Your task to perform on an android device: What's the news in the Philippines? Image 0: 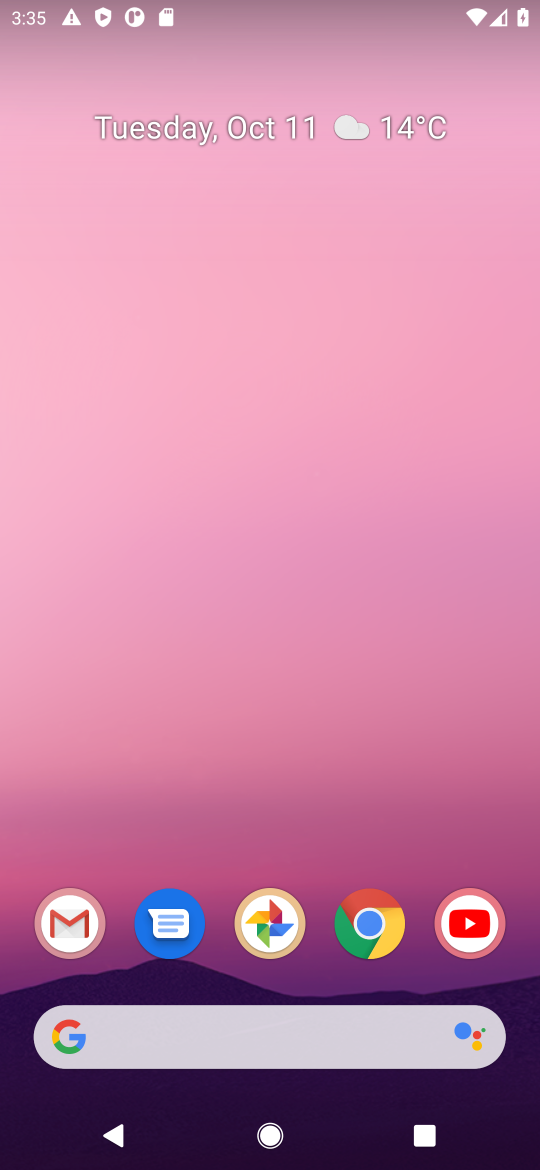
Step 0: drag from (311, 997) to (354, 79)
Your task to perform on an android device: What's the news in the Philippines? Image 1: 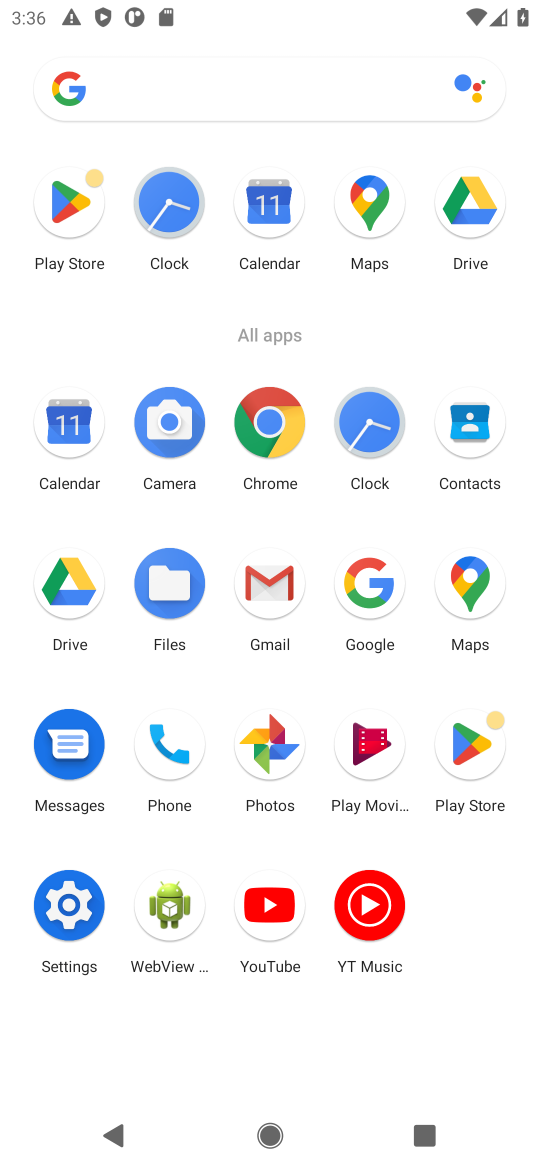
Step 1: click (271, 419)
Your task to perform on an android device: What's the news in the Philippines? Image 2: 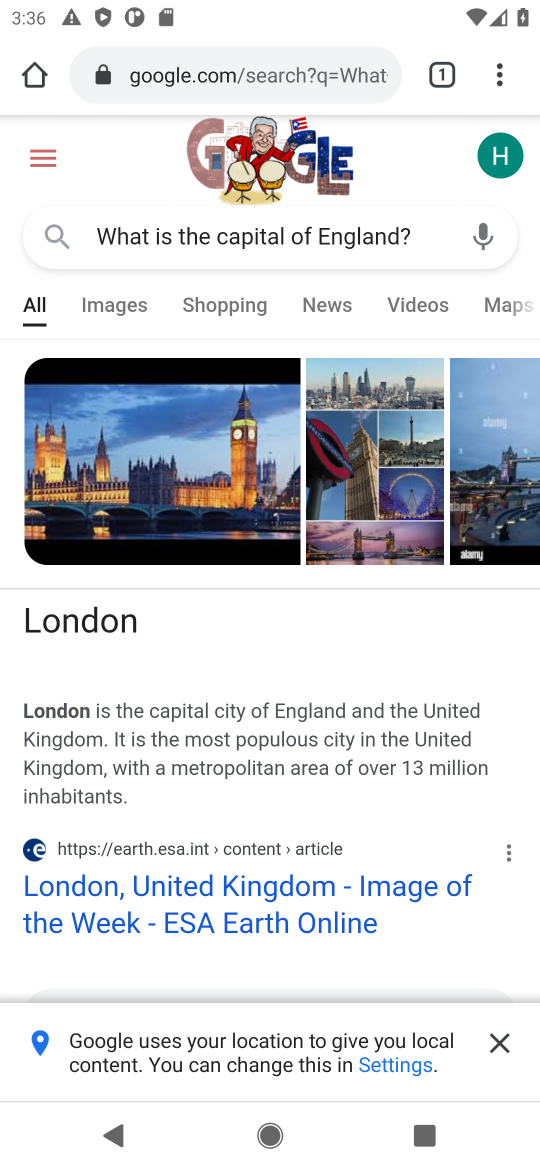
Step 2: click (420, 242)
Your task to perform on an android device: What's the news in the Philippines? Image 3: 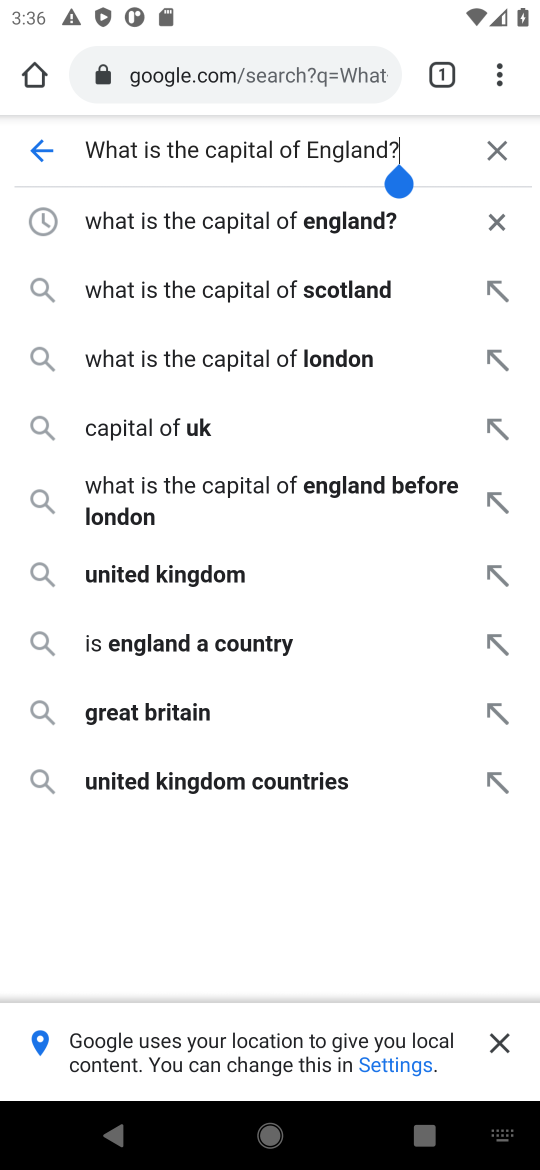
Step 3: click (493, 144)
Your task to perform on an android device: What's the news in the Philippines? Image 4: 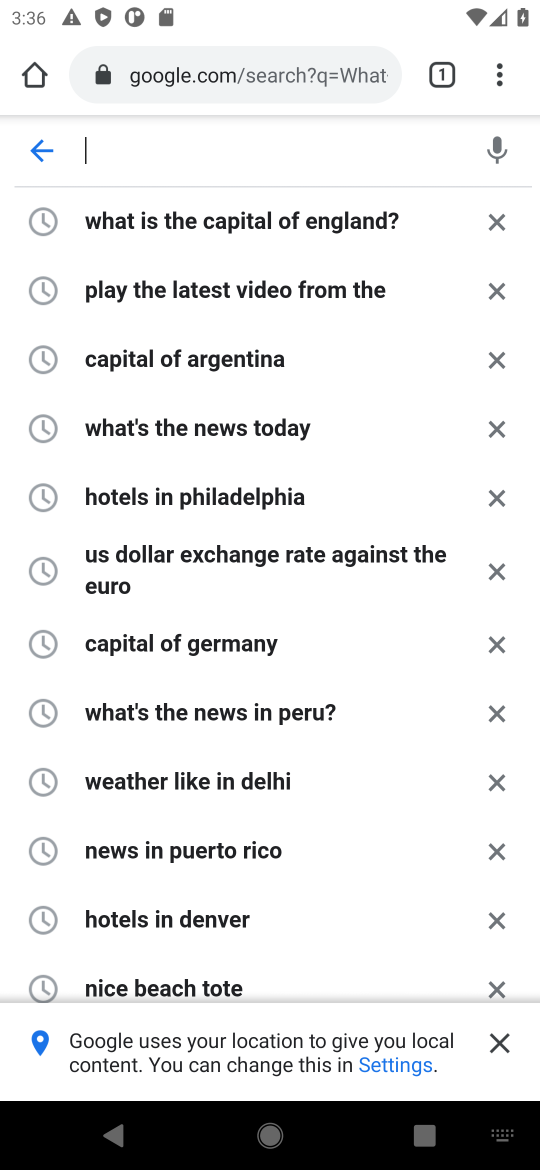
Step 4: type "What's the news in the Philippines?"
Your task to perform on an android device: What's the news in the Philippines? Image 5: 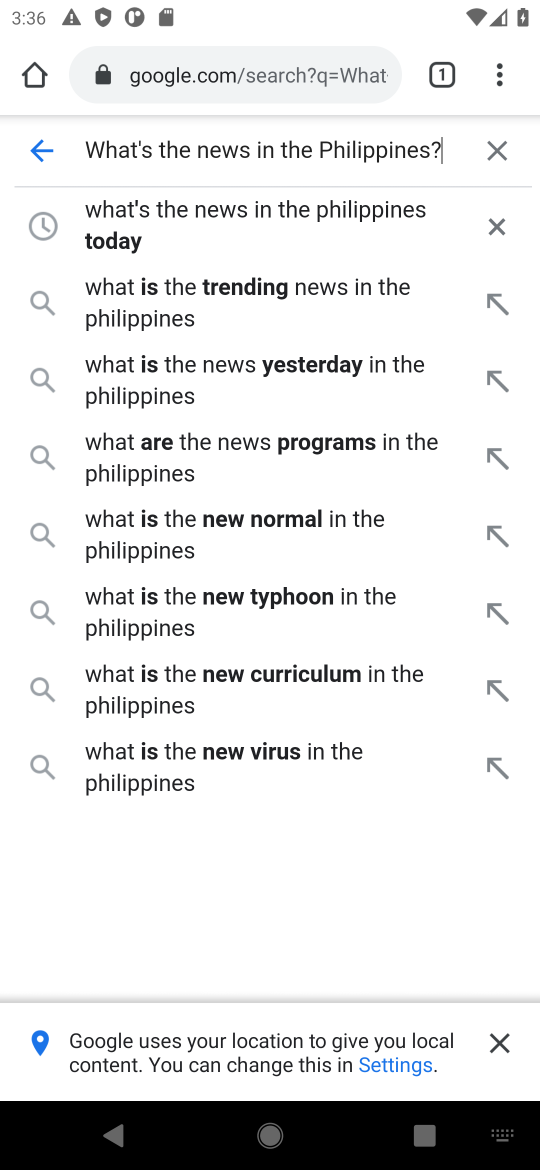
Step 5: type ""
Your task to perform on an android device: What's the news in the Philippines? Image 6: 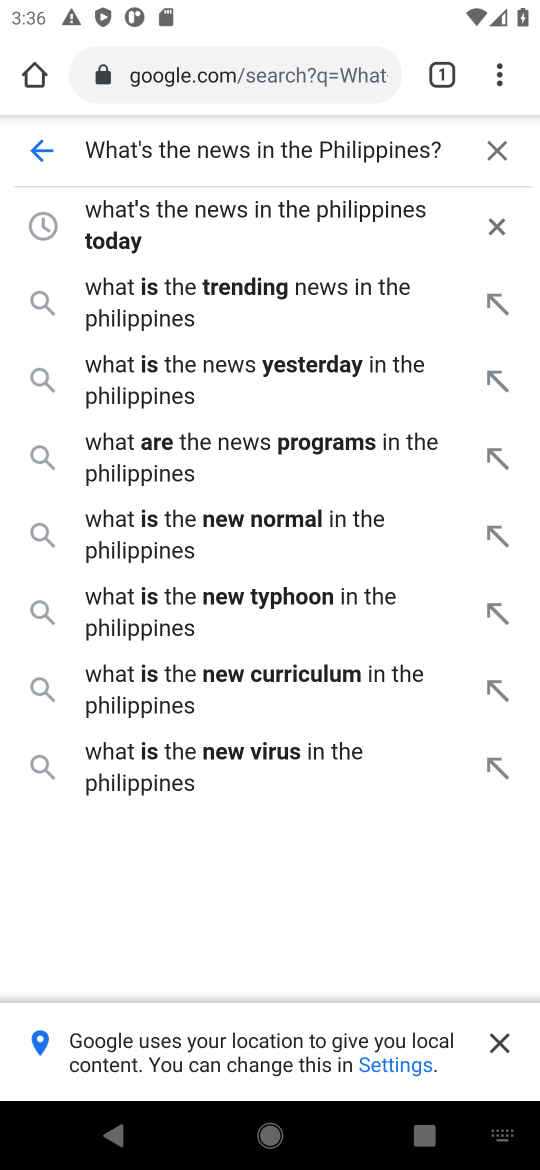
Step 6: click (229, 210)
Your task to perform on an android device: What's the news in the Philippines? Image 7: 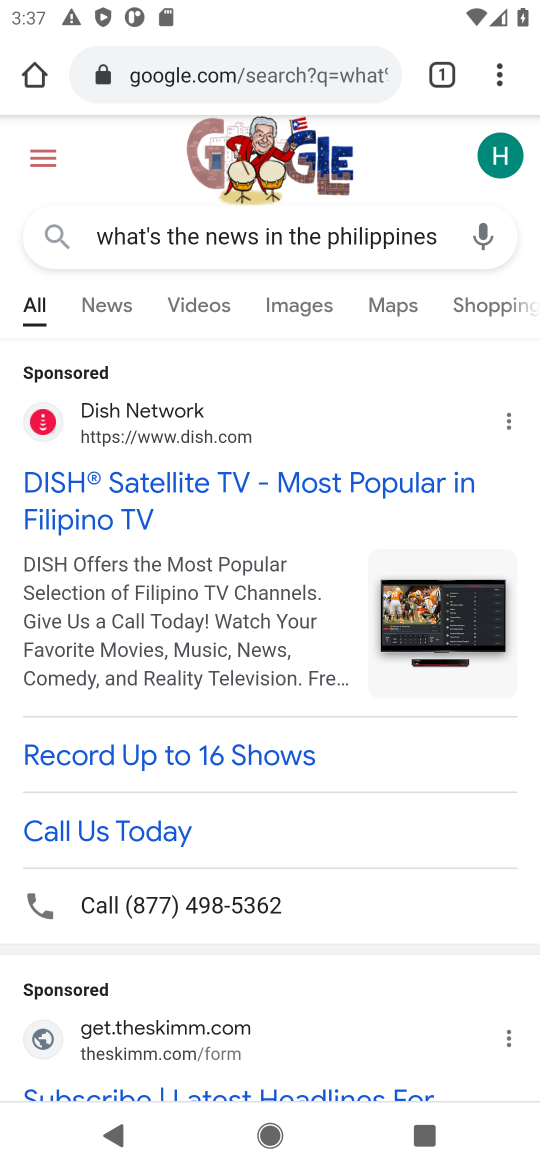
Step 7: click (113, 297)
Your task to perform on an android device: What's the news in the Philippines? Image 8: 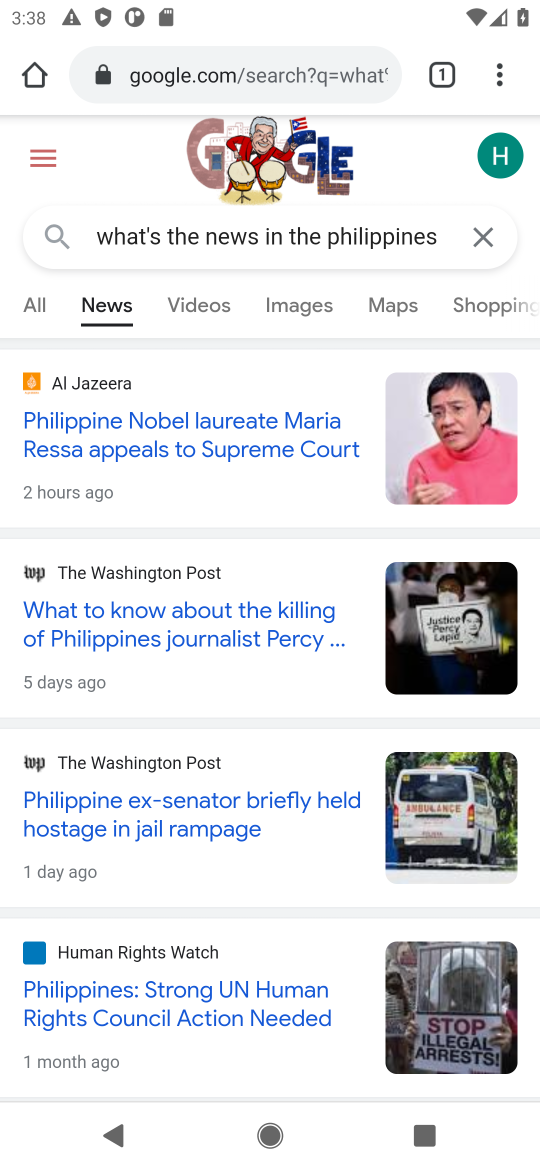
Step 8: task complete